Your task to perform on an android device: turn off wifi Image 0: 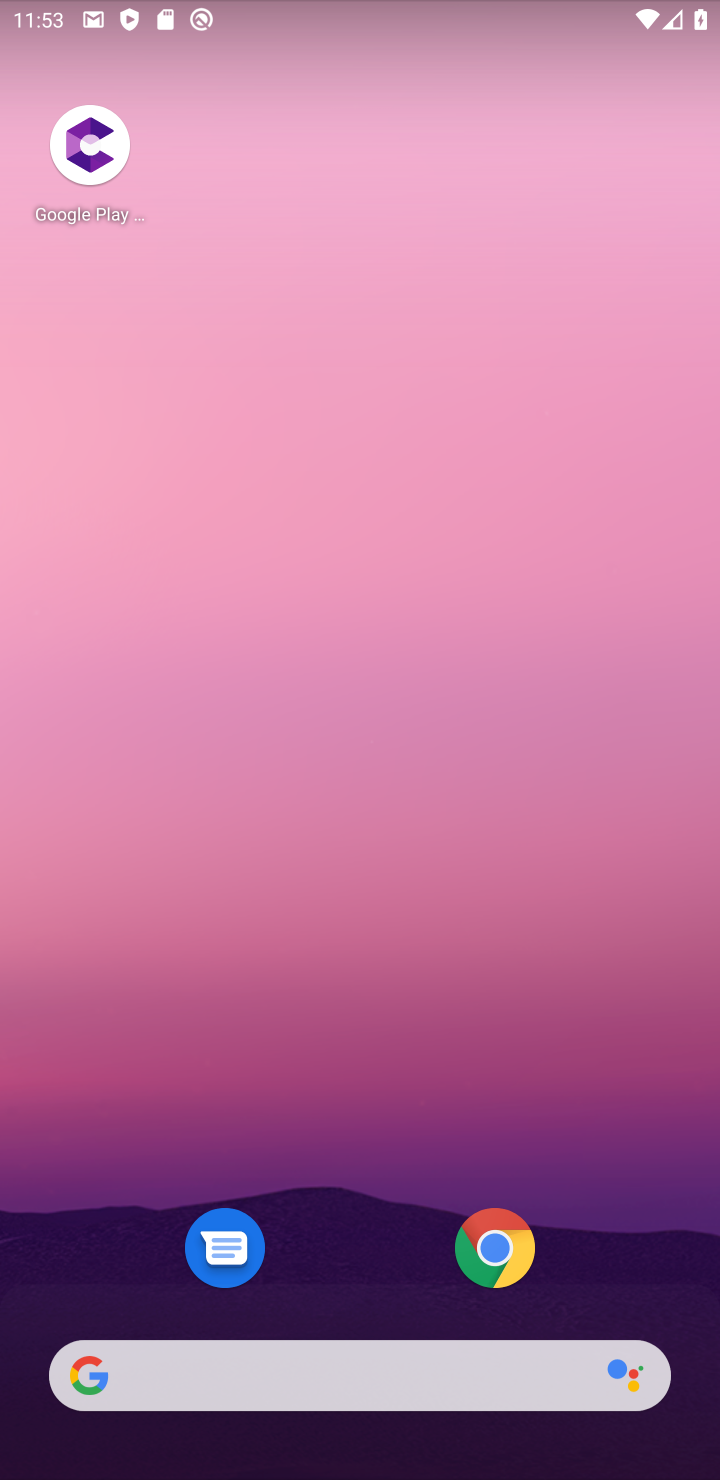
Step 0: drag from (365, 1312) to (217, 0)
Your task to perform on an android device: turn off wifi Image 1: 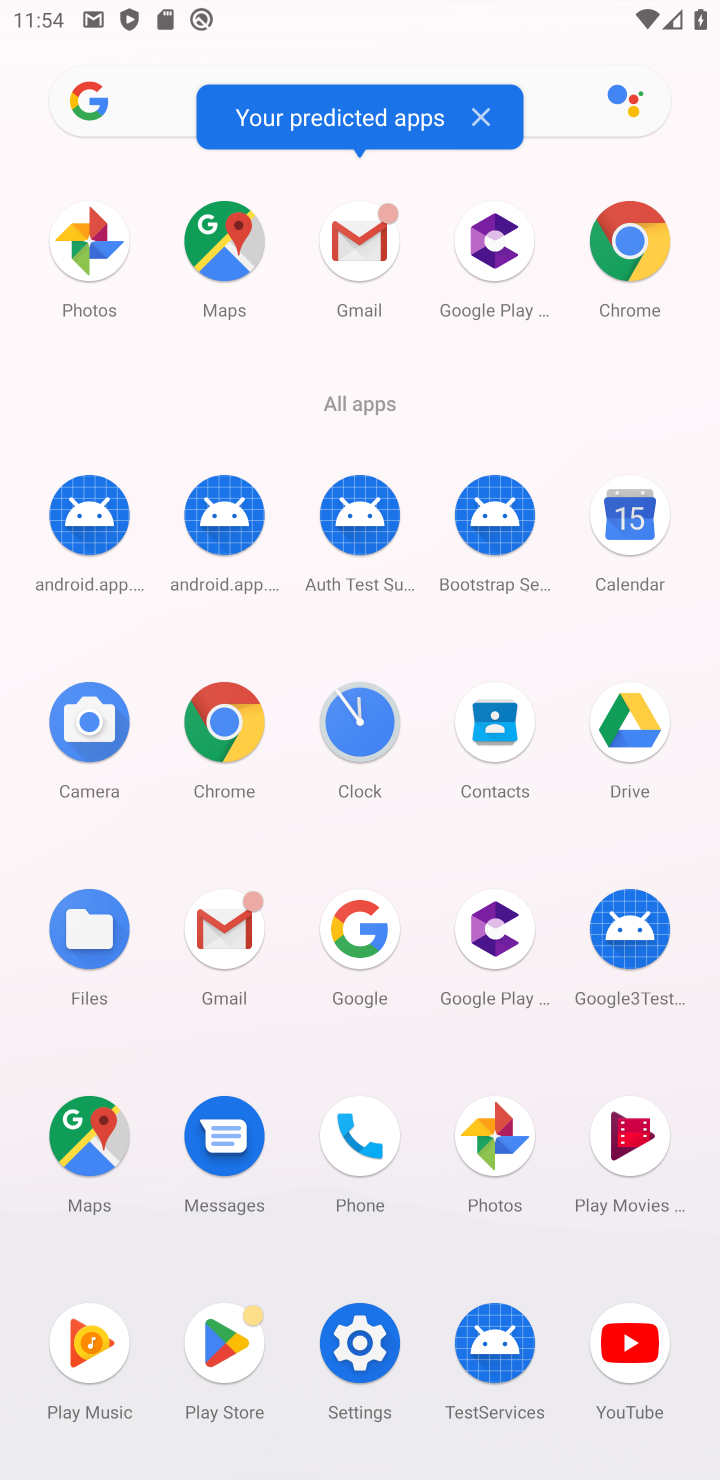
Step 1: click (368, 1383)
Your task to perform on an android device: turn off wifi Image 2: 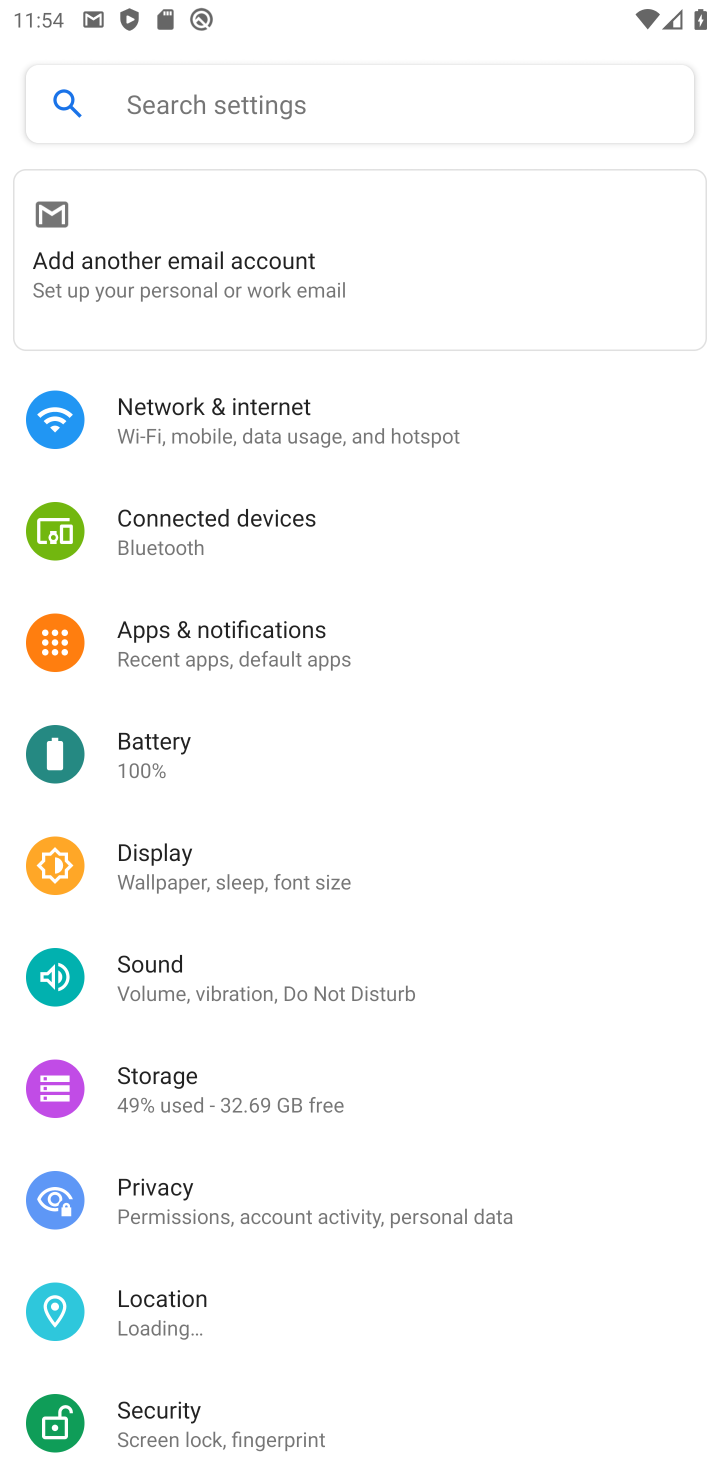
Step 2: click (257, 451)
Your task to perform on an android device: turn off wifi Image 3: 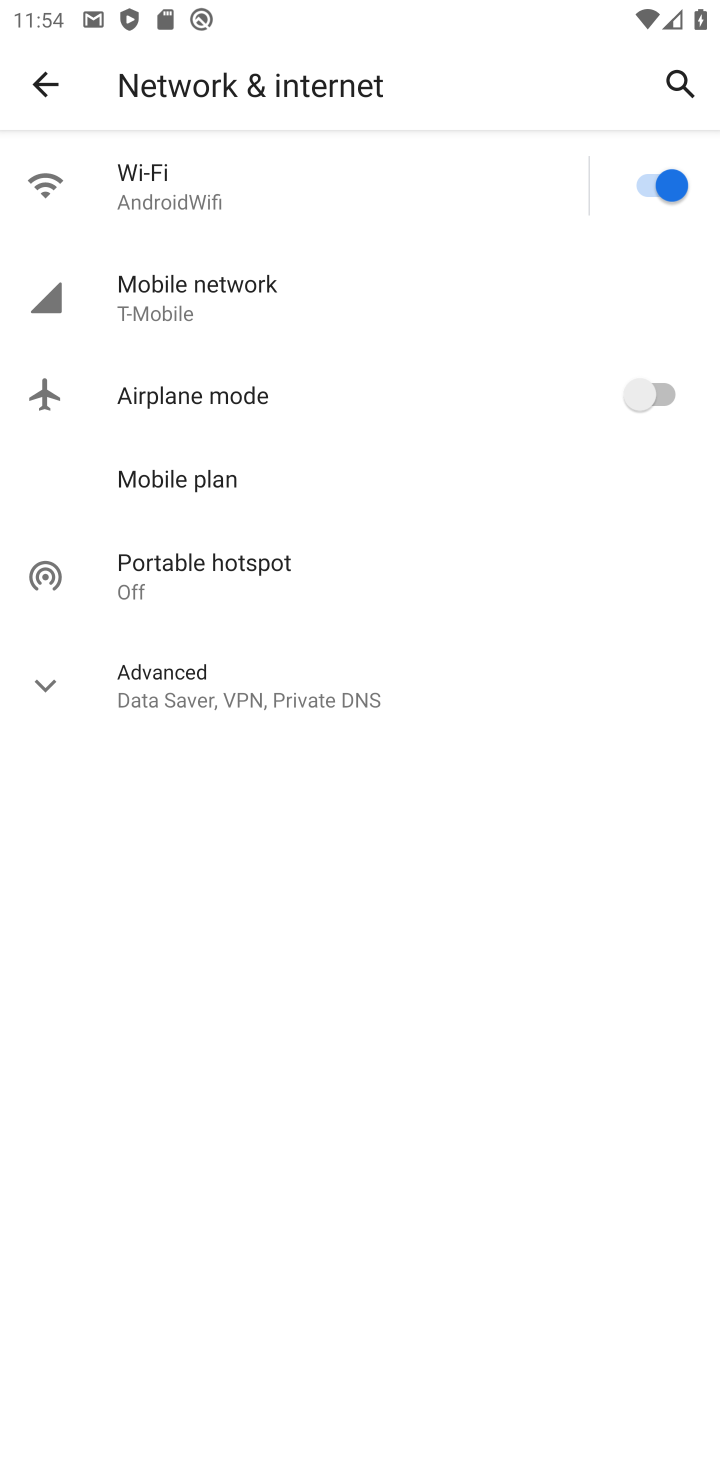
Step 3: click (658, 203)
Your task to perform on an android device: turn off wifi Image 4: 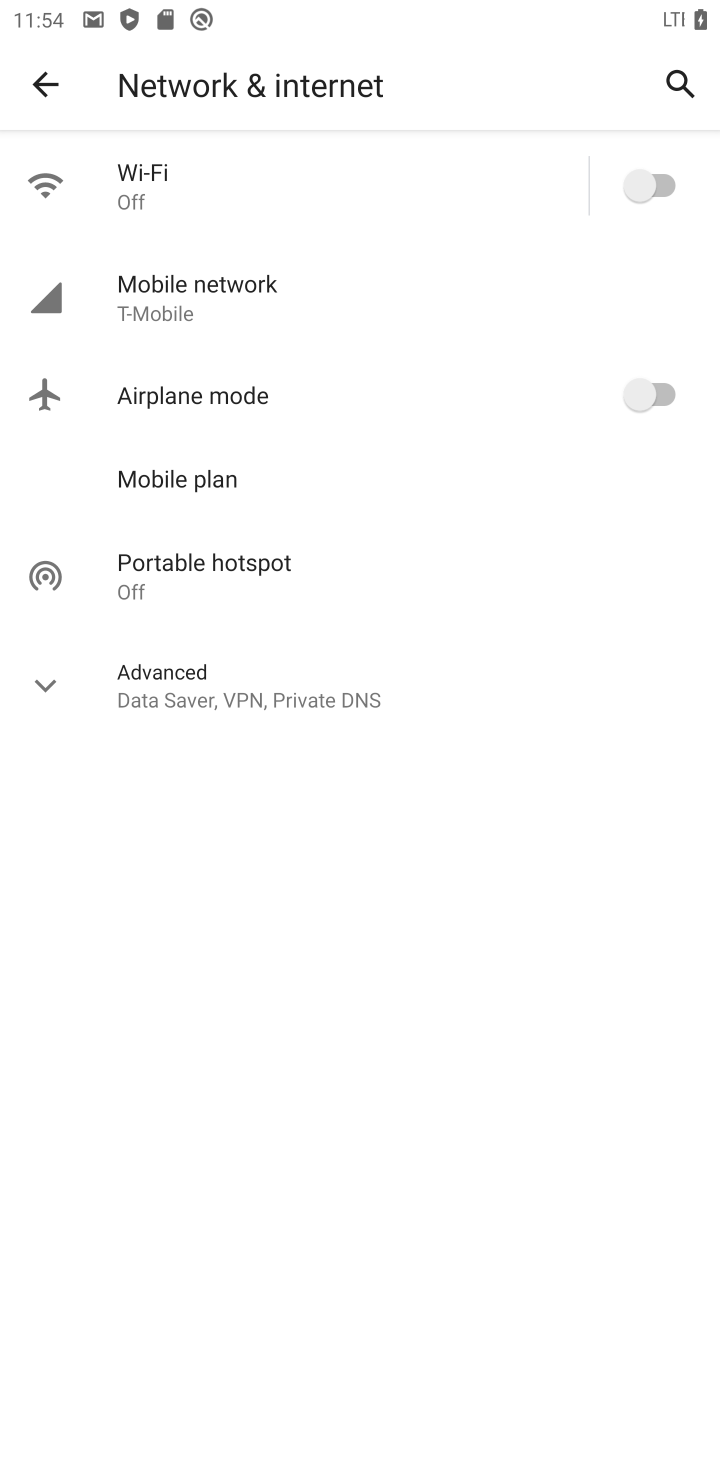
Step 4: task complete